Your task to perform on an android device: Search for Italian restaurants on Maps Image 0: 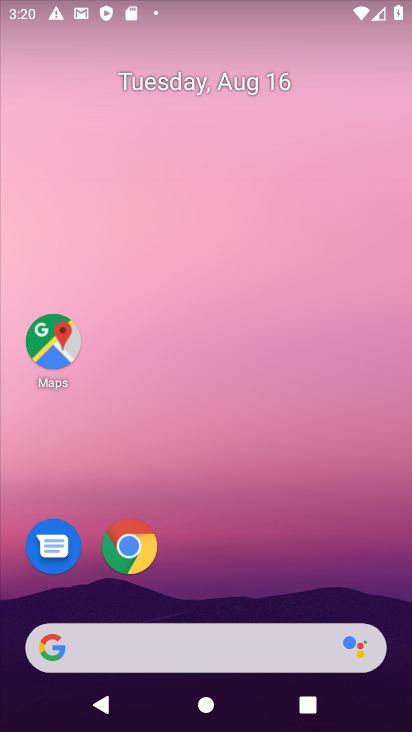
Step 0: click (333, 71)
Your task to perform on an android device: Search for Italian restaurants on Maps Image 1: 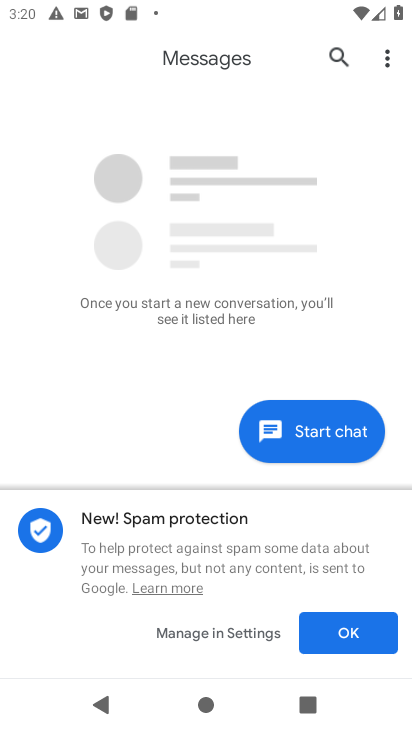
Step 1: press home button
Your task to perform on an android device: Search for Italian restaurants on Maps Image 2: 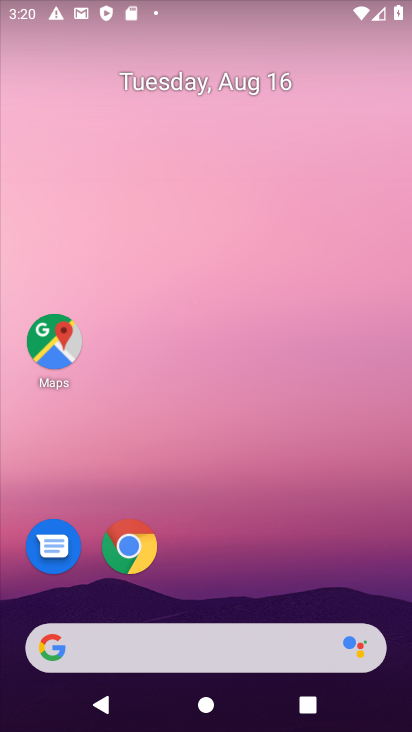
Step 2: drag from (324, 592) to (353, 92)
Your task to perform on an android device: Search for Italian restaurants on Maps Image 3: 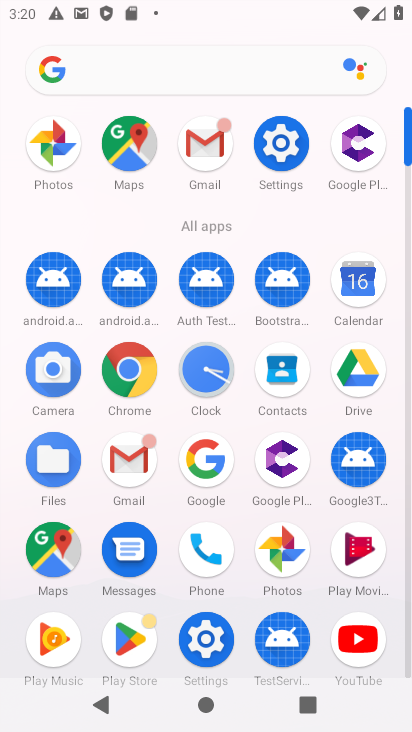
Step 3: click (130, 142)
Your task to perform on an android device: Search for Italian restaurants on Maps Image 4: 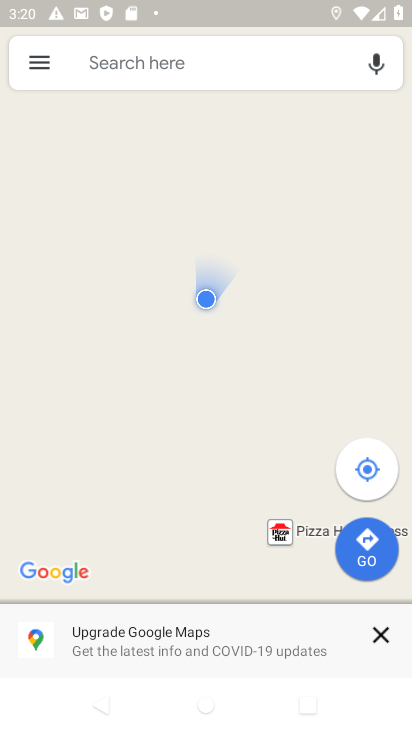
Step 4: click (188, 60)
Your task to perform on an android device: Search for Italian restaurants on Maps Image 5: 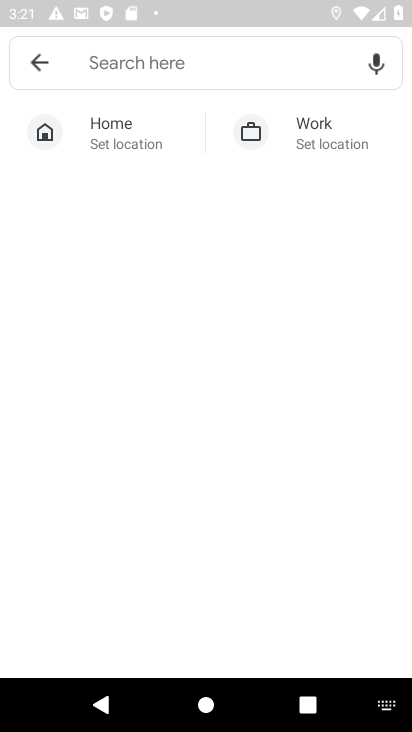
Step 5: type "italian restaurants"
Your task to perform on an android device: Search for Italian restaurants on Maps Image 6: 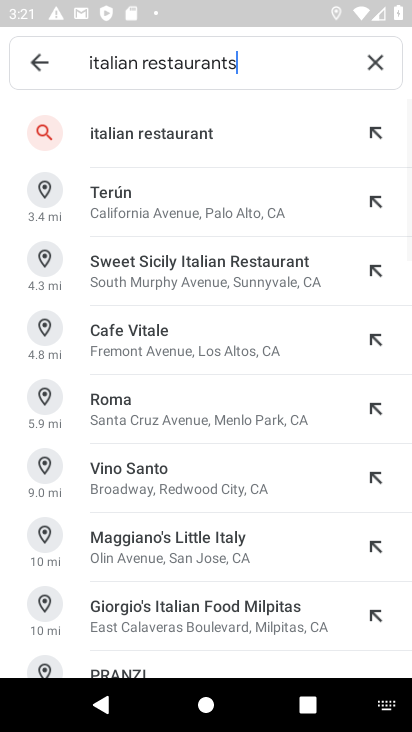
Step 6: click (184, 136)
Your task to perform on an android device: Search for Italian restaurants on Maps Image 7: 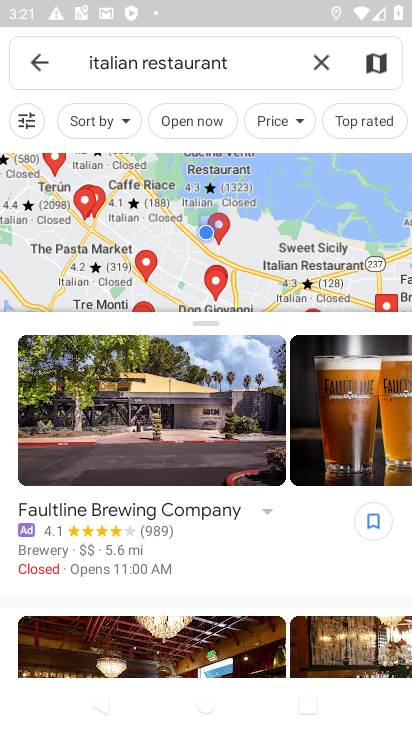
Step 7: task complete